Your task to perform on an android device: find photos in the google photos app Image 0: 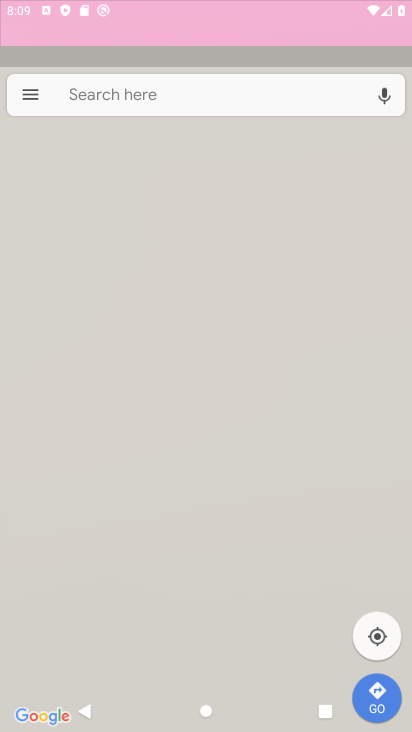
Step 0: drag from (314, 532) to (158, 75)
Your task to perform on an android device: find photos in the google photos app Image 1: 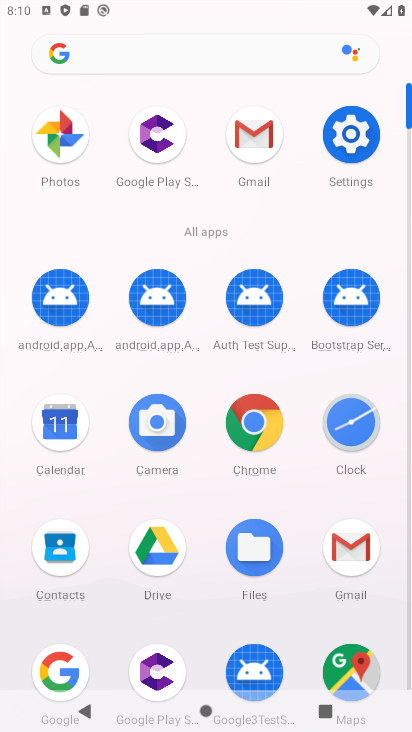
Step 1: drag from (310, 648) to (157, 6)
Your task to perform on an android device: find photos in the google photos app Image 2: 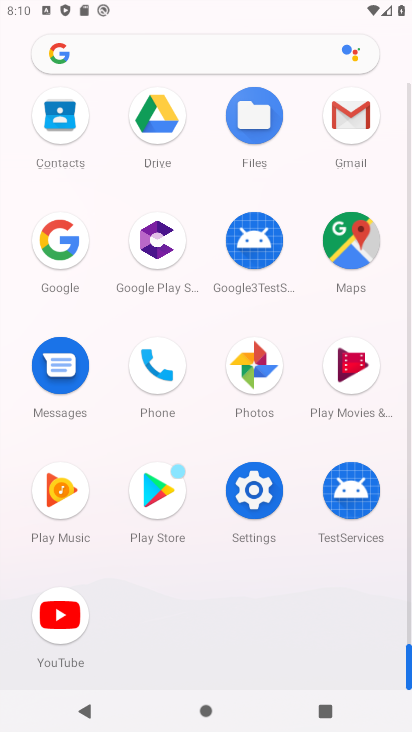
Step 2: click (263, 371)
Your task to perform on an android device: find photos in the google photos app Image 3: 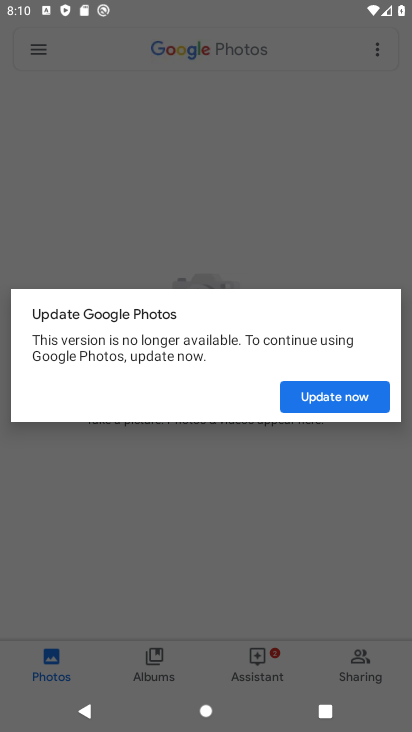
Step 3: click (342, 400)
Your task to perform on an android device: find photos in the google photos app Image 4: 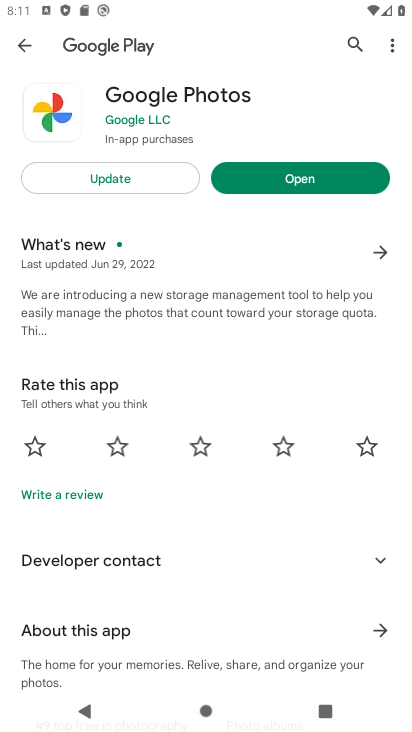
Step 4: task complete